Your task to perform on an android device: Open calendar and show me the first week of next month Image 0: 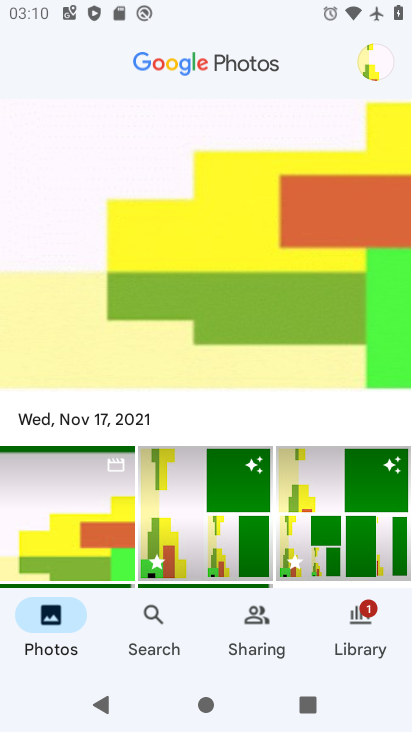
Step 0: press home button
Your task to perform on an android device: Open calendar and show me the first week of next month Image 1: 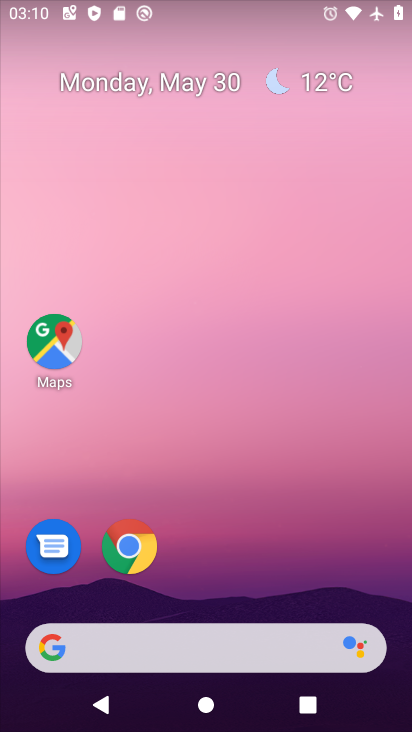
Step 1: drag from (217, 609) to (253, 71)
Your task to perform on an android device: Open calendar and show me the first week of next month Image 2: 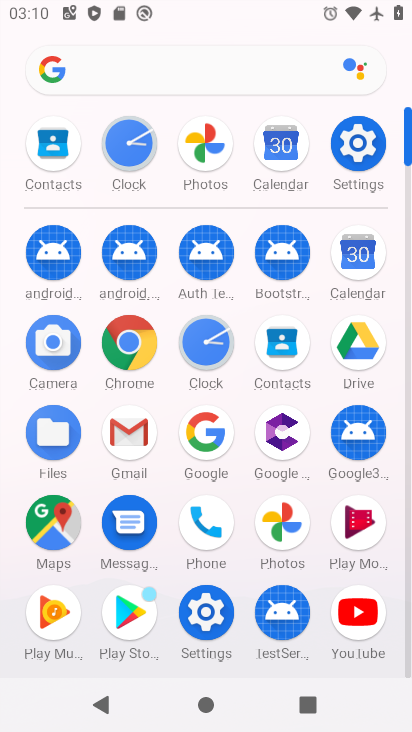
Step 2: click (281, 138)
Your task to perform on an android device: Open calendar and show me the first week of next month Image 3: 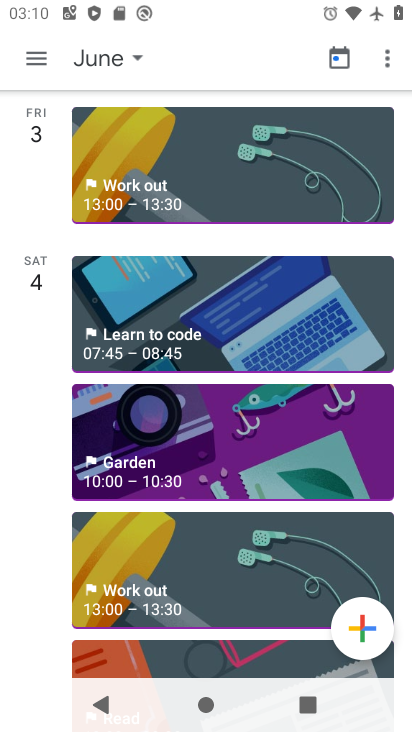
Step 3: drag from (36, 506) to (28, 173)
Your task to perform on an android device: Open calendar and show me the first week of next month Image 4: 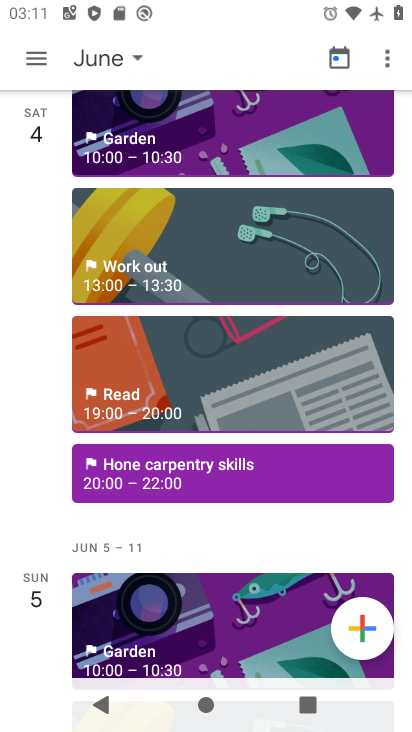
Step 4: drag from (48, 123) to (33, 651)
Your task to perform on an android device: Open calendar and show me the first week of next month Image 5: 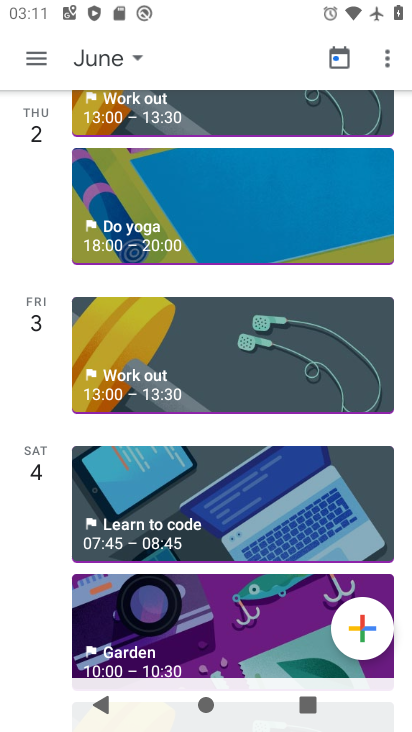
Step 5: drag from (49, 141) to (43, 663)
Your task to perform on an android device: Open calendar and show me the first week of next month Image 6: 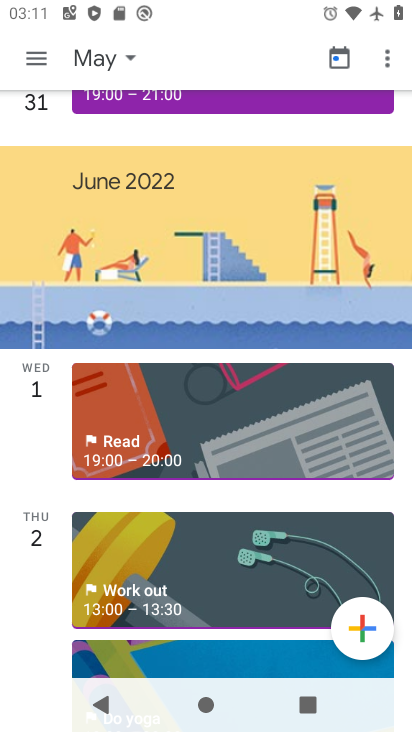
Step 6: drag from (47, 116) to (41, 572)
Your task to perform on an android device: Open calendar and show me the first week of next month Image 7: 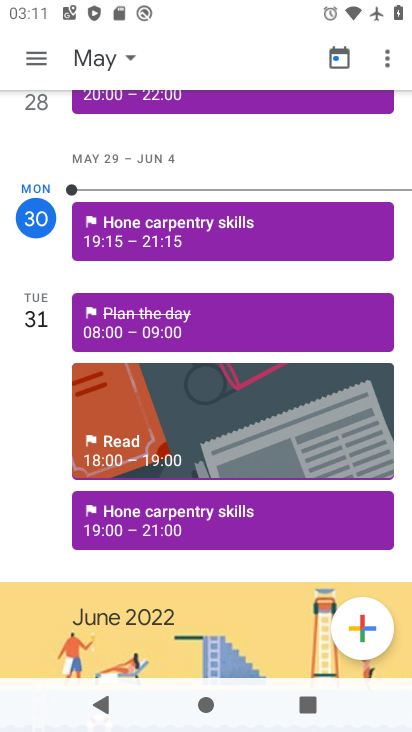
Step 7: click (51, 221)
Your task to perform on an android device: Open calendar and show me the first week of next month Image 8: 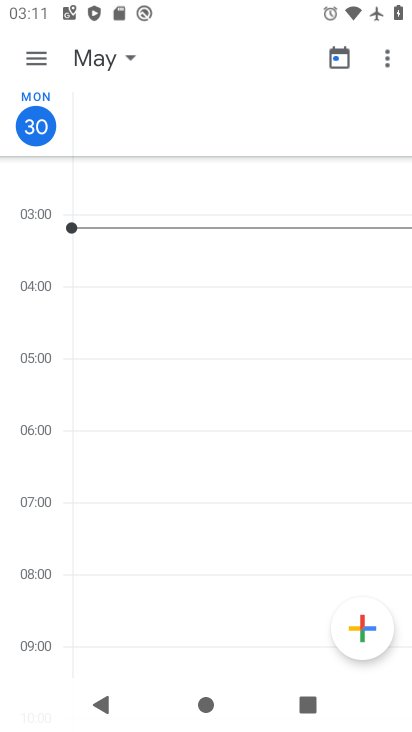
Step 8: click (55, 127)
Your task to perform on an android device: Open calendar and show me the first week of next month Image 9: 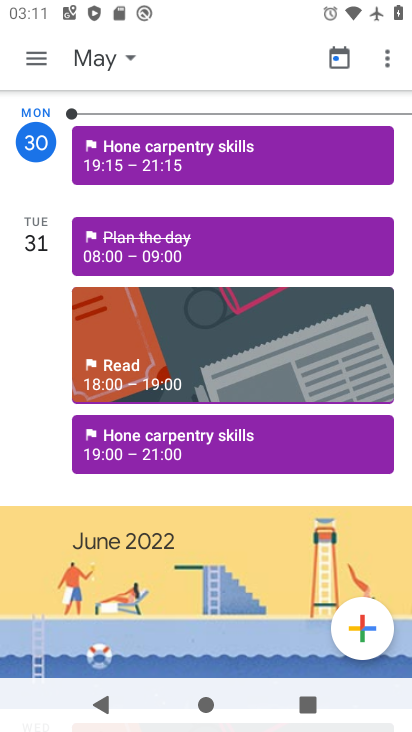
Step 9: task complete